Your task to perform on an android device: delete browsing data in the chrome app Image 0: 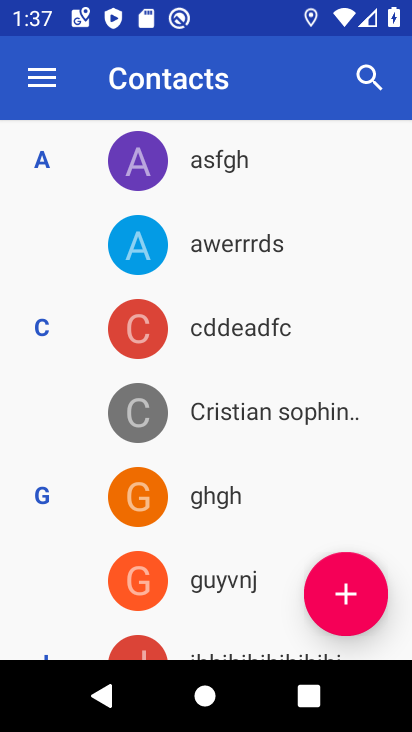
Step 0: press back button
Your task to perform on an android device: delete browsing data in the chrome app Image 1: 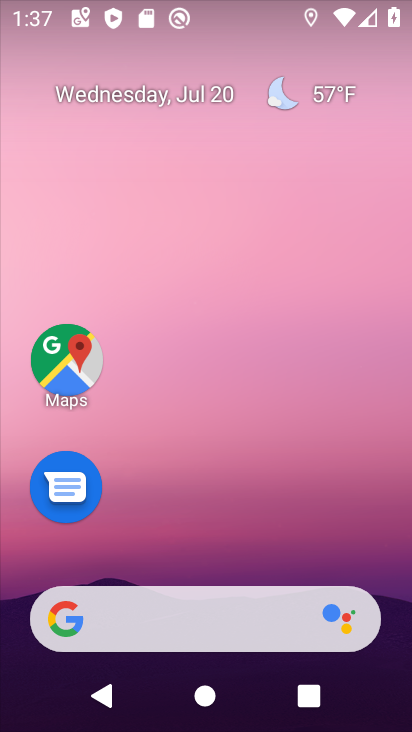
Step 1: drag from (216, 522) to (253, 5)
Your task to perform on an android device: delete browsing data in the chrome app Image 2: 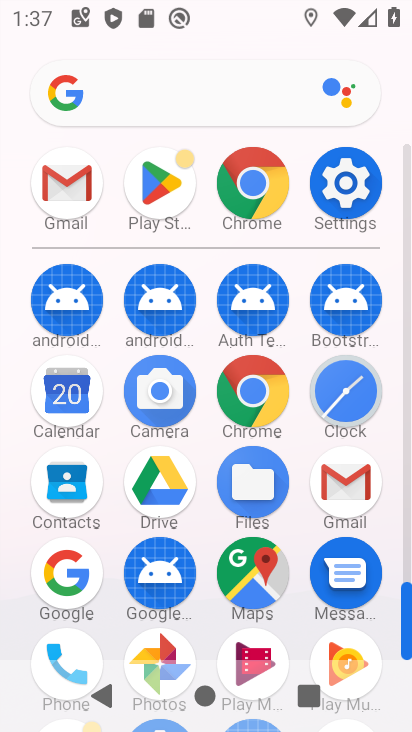
Step 2: click (238, 188)
Your task to perform on an android device: delete browsing data in the chrome app Image 3: 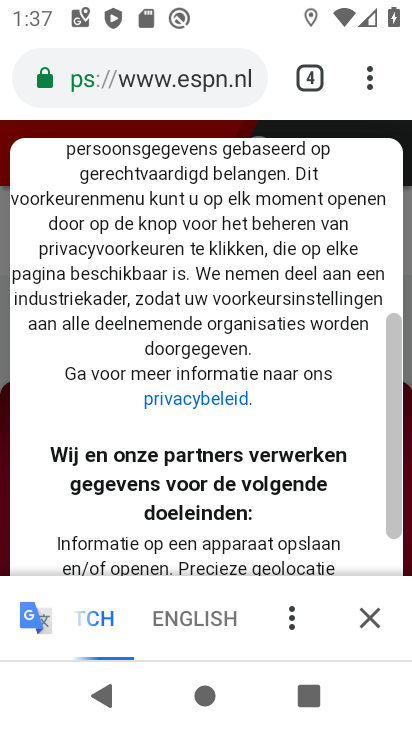
Step 3: drag from (373, 88) to (99, 425)
Your task to perform on an android device: delete browsing data in the chrome app Image 4: 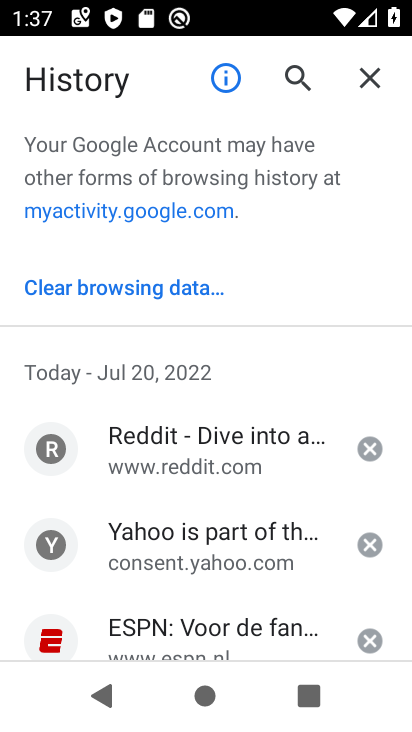
Step 4: click (89, 286)
Your task to perform on an android device: delete browsing data in the chrome app Image 5: 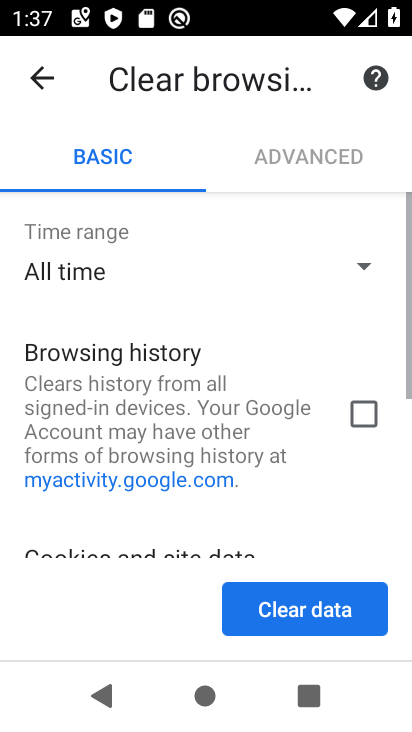
Step 5: click (349, 408)
Your task to perform on an android device: delete browsing data in the chrome app Image 6: 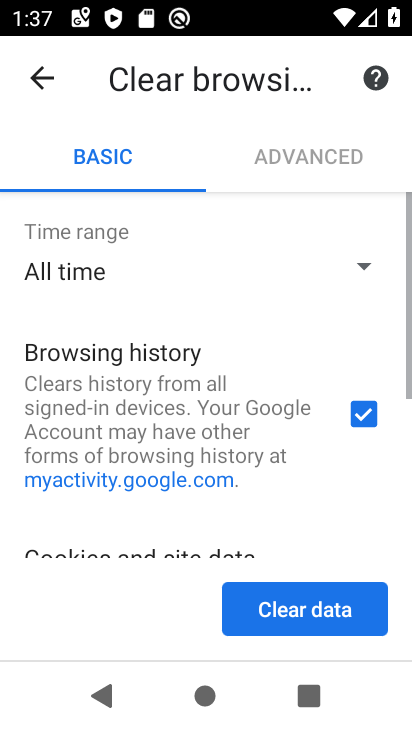
Step 6: drag from (196, 513) to (219, 199)
Your task to perform on an android device: delete browsing data in the chrome app Image 7: 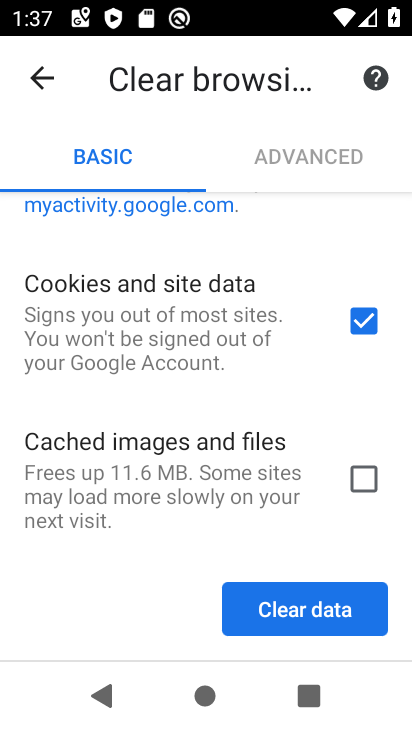
Step 7: click (364, 492)
Your task to perform on an android device: delete browsing data in the chrome app Image 8: 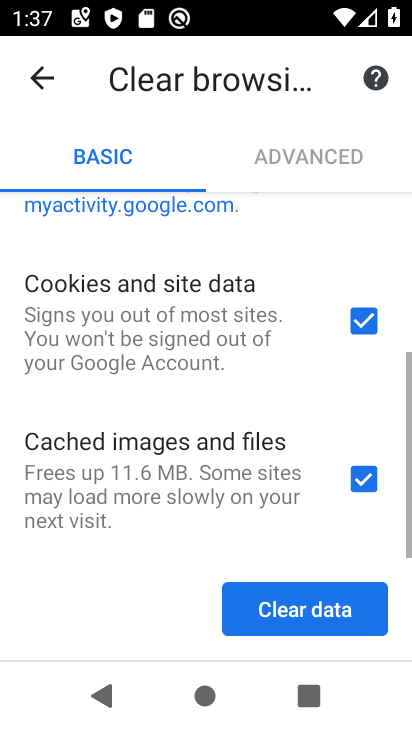
Step 8: drag from (187, 292) to (216, 246)
Your task to perform on an android device: delete browsing data in the chrome app Image 9: 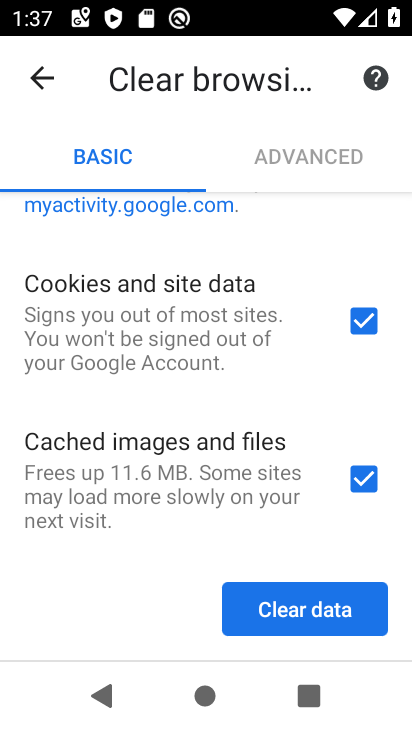
Step 9: click (276, 607)
Your task to perform on an android device: delete browsing data in the chrome app Image 10: 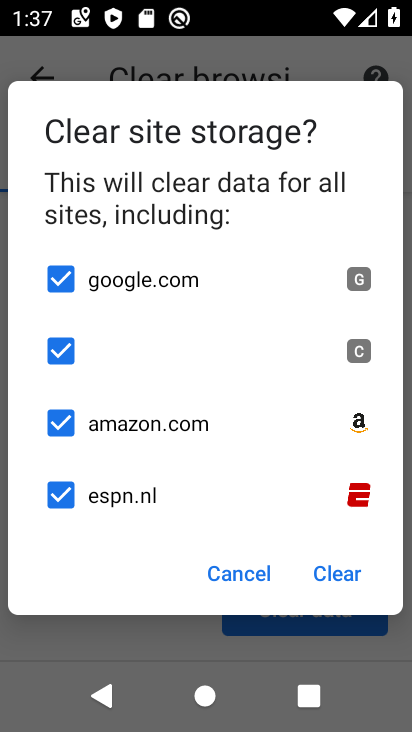
Step 10: click (330, 569)
Your task to perform on an android device: delete browsing data in the chrome app Image 11: 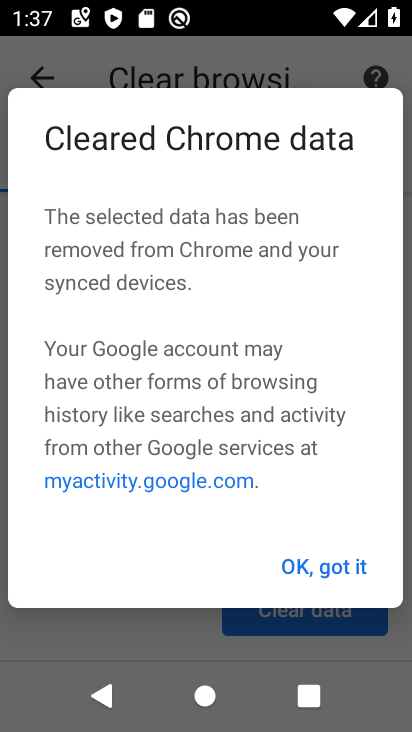
Step 11: click (334, 558)
Your task to perform on an android device: delete browsing data in the chrome app Image 12: 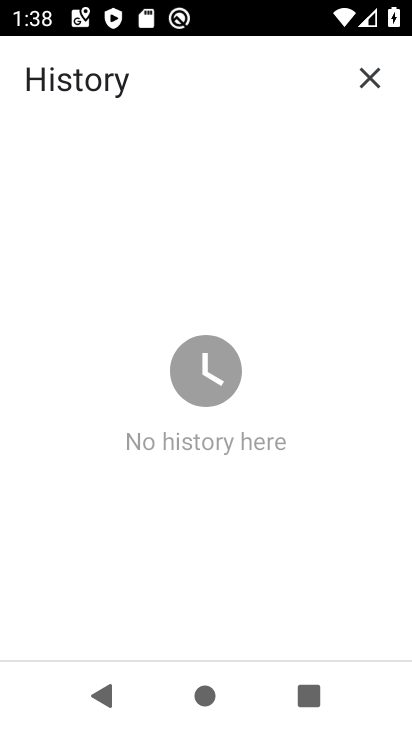
Step 12: task complete